Your task to perform on an android device: see creations saved in the google photos Image 0: 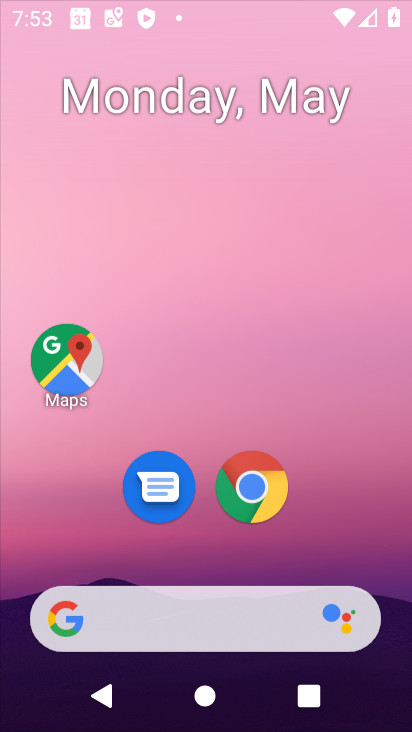
Step 0: press home button
Your task to perform on an android device: see creations saved in the google photos Image 1: 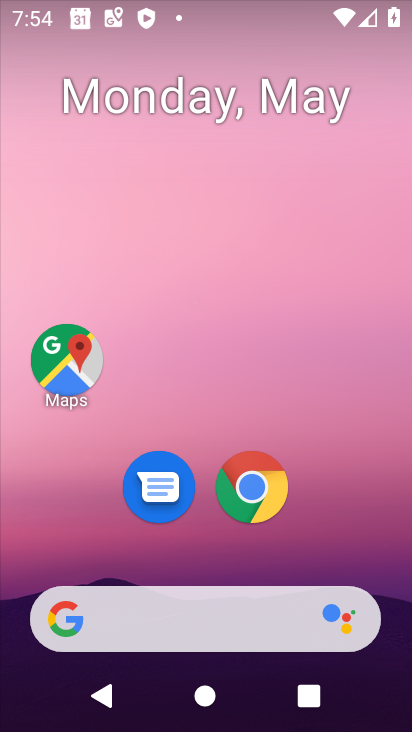
Step 1: drag from (357, 561) to (351, 154)
Your task to perform on an android device: see creations saved in the google photos Image 2: 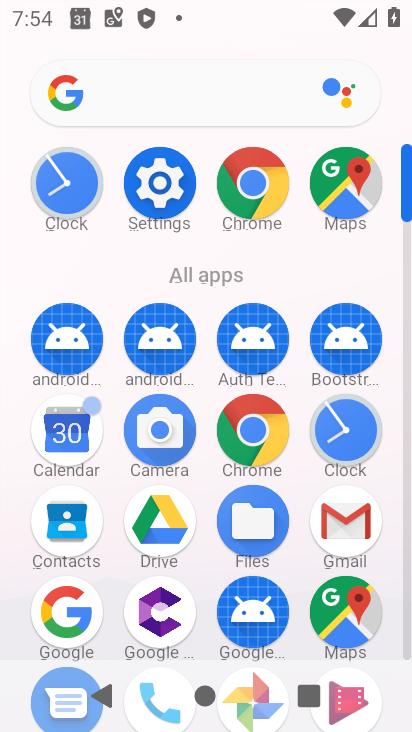
Step 2: drag from (299, 563) to (292, 274)
Your task to perform on an android device: see creations saved in the google photos Image 3: 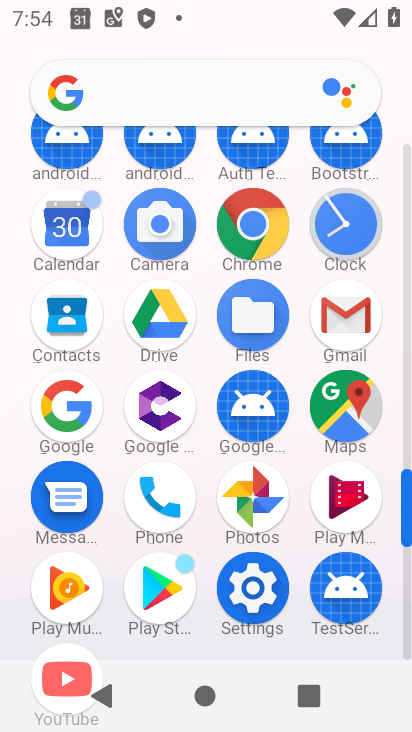
Step 3: click (261, 501)
Your task to perform on an android device: see creations saved in the google photos Image 4: 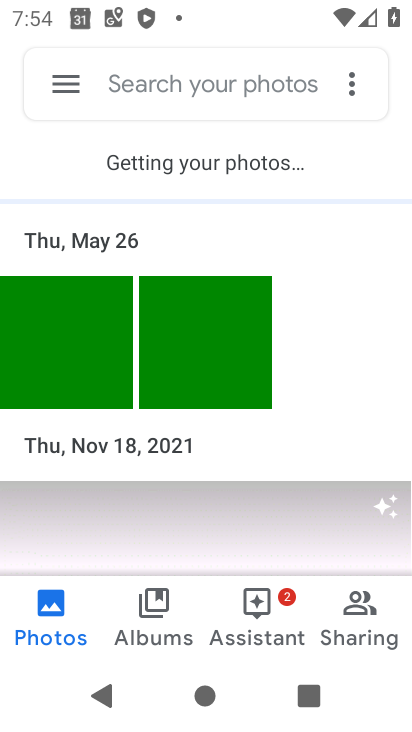
Step 4: click (223, 80)
Your task to perform on an android device: see creations saved in the google photos Image 5: 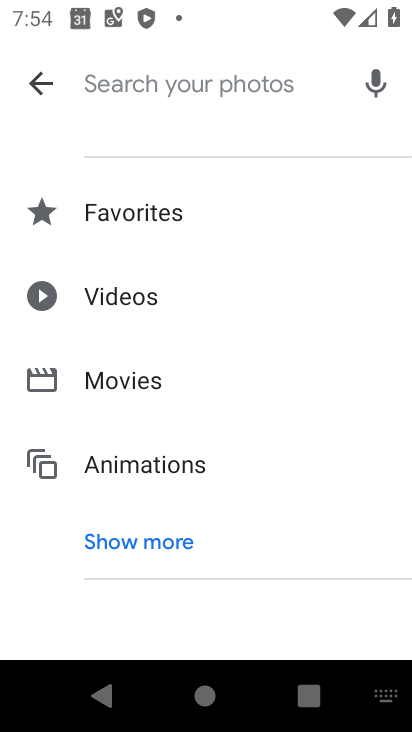
Step 5: click (167, 535)
Your task to perform on an android device: see creations saved in the google photos Image 6: 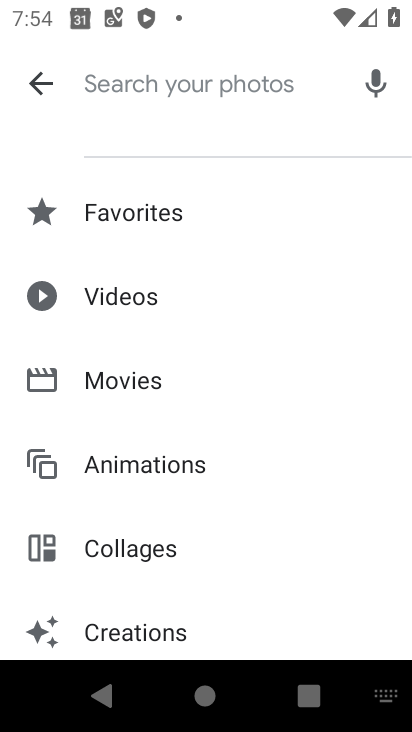
Step 6: drag from (295, 511) to (303, 377)
Your task to perform on an android device: see creations saved in the google photos Image 7: 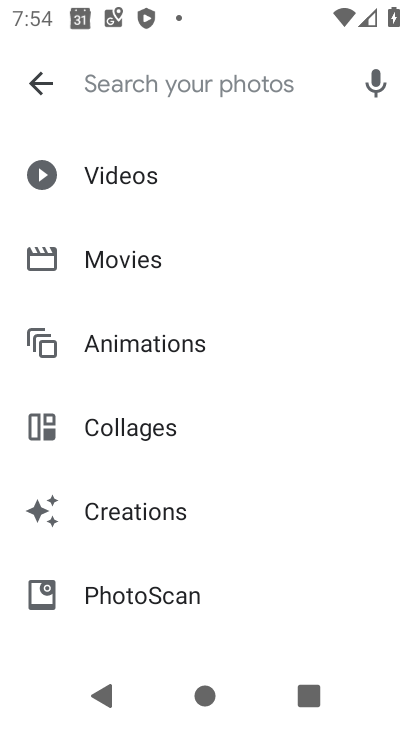
Step 7: drag from (310, 557) to (323, 335)
Your task to perform on an android device: see creations saved in the google photos Image 8: 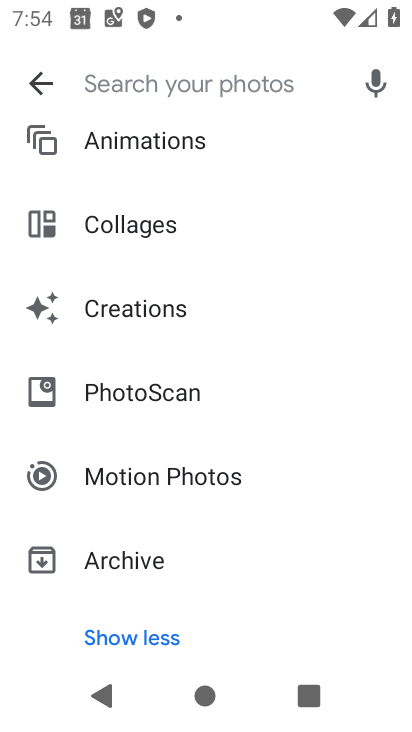
Step 8: drag from (313, 535) to (317, 321)
Your task to perform on an android device: see creations saved in the google photos Image 9: 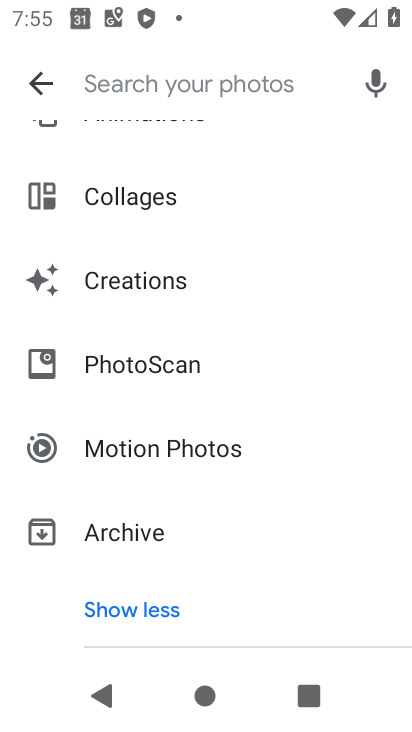
Step 9: click (198, 287)
Your task to perform on an android device: see creations saved in the google photos Image 10: 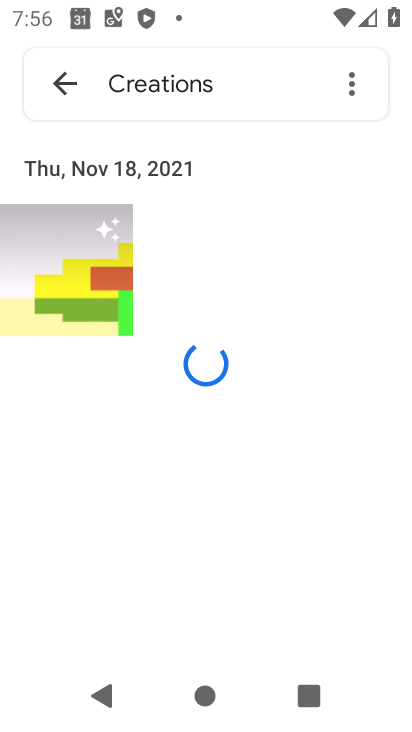
Step 10: task complete